Your task to perform on an android device: Go to Yahoo.com Image 0: 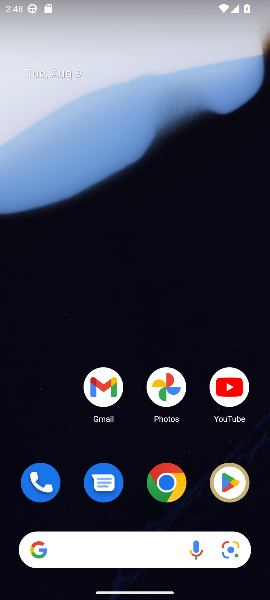
Step 0: click (169, 490)
Your task to perform on an android device: Go to Yahoo.com Image 1: 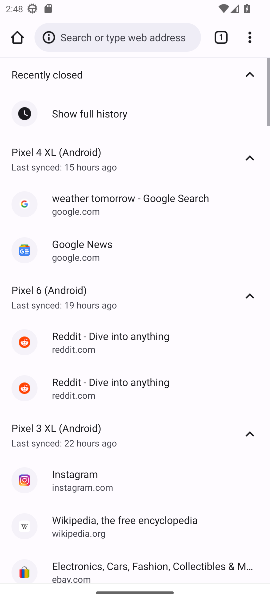
Step 1: click (220, 39)
Your task to perform on an android device: Go to Yahoo.com Image 2: 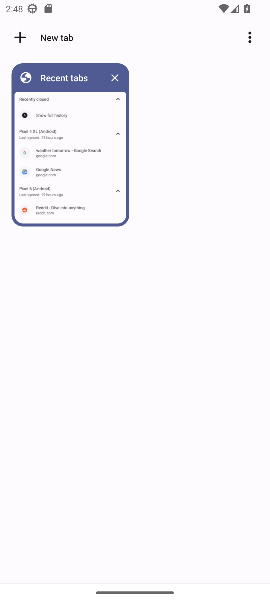
Step 2: click (10, 26)
Your task to perform on an android device: Go to Yahoo.com Image 3: 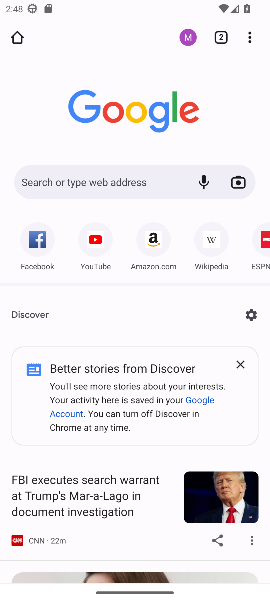
Step 3: click (92, 186)
Your task to perform on an android device: Go to Yahoo.com Image 4: 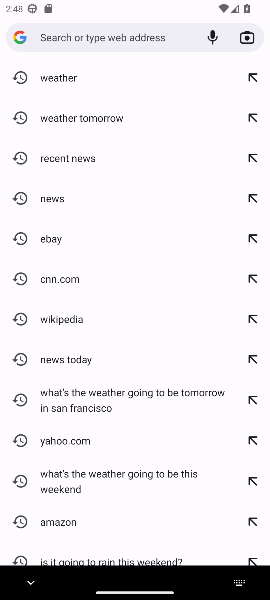
Step 4: type "Yahoo.com"
Your task to perform on an android device: Go to Yahoo.com Image 5: 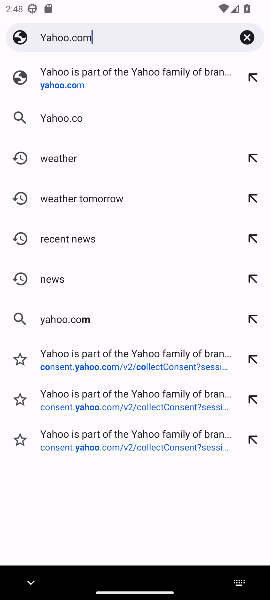
Step 5: type ""
Your task to perform on an android device: Go to Yahoo.com Image 6: 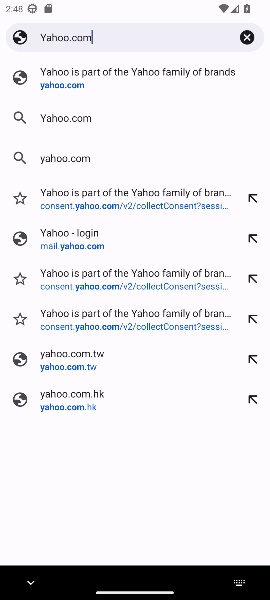
Step 6: click (125, 77)
Your task to perform on an android device: Go to Yahoo.com Image 7: 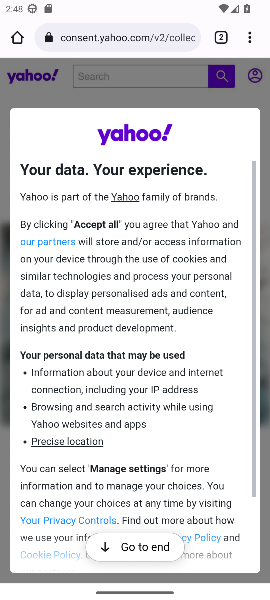
Step 7: task complete